Your task to perform on an android device: open chrome and create a bookmark for the current page Image 0: 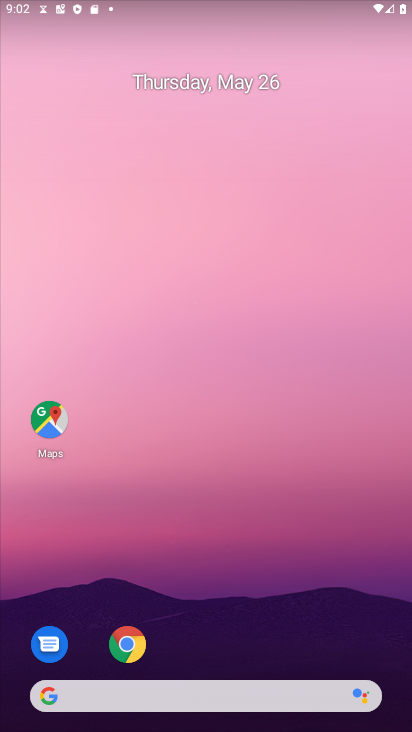
Step 0: click (125, 642)
Your task to perform on an android device: open chrome and create a bookmark for the current page Image 1: 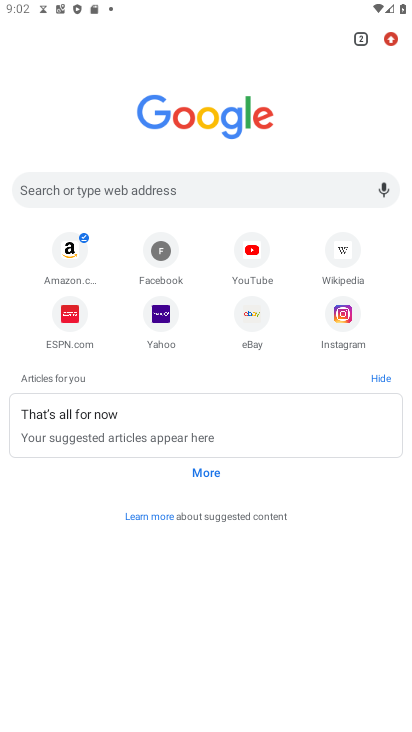
Step 1: task complete